Your task to perform on an android device: Do I have any events this weekend? Image 0: 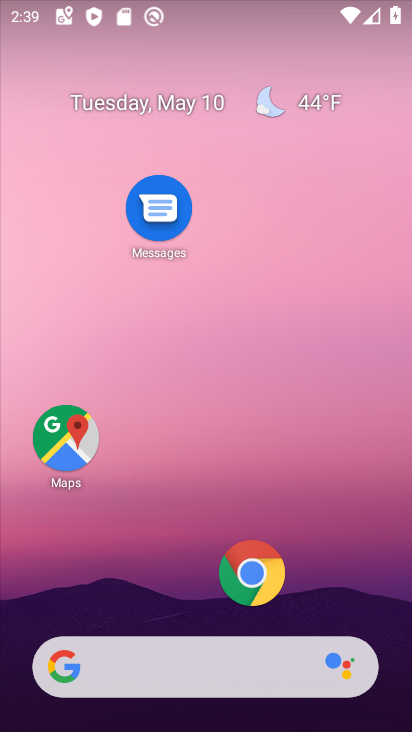
Step 0: drag from (192, 605) to (217, 191)
Your task to perform on an android device: Do I have any events this weekend? Image 1: 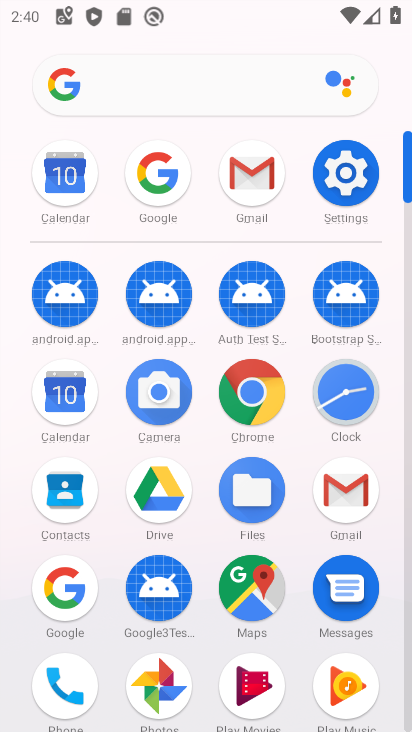
Step 1: click (59, 407)
Your task to perform on an android device: Do I have any events this weekend? Image 2: 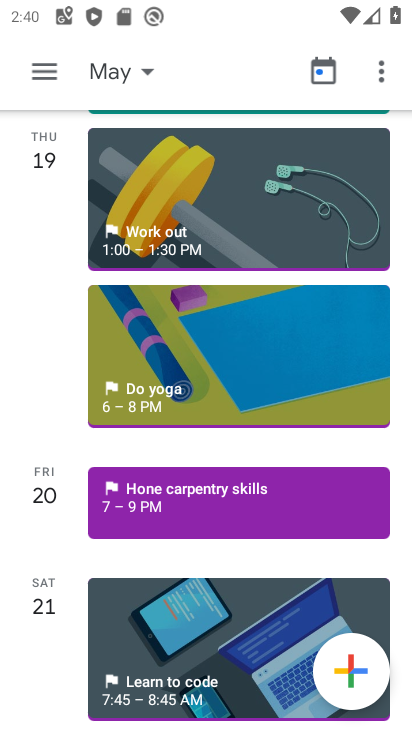
Step 2: click (143, 81)
Your task to perform on an android device: Do I have any events this weekend? Image 3: 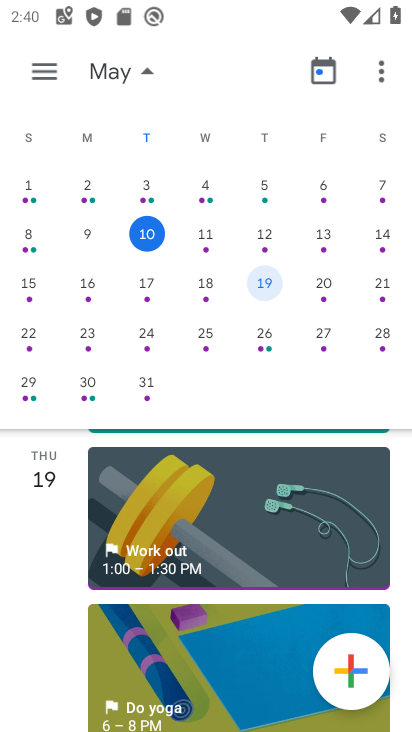
Step 3: click (373, 237)
Your task to perform on an android device: Do I have any events this weekend? Image 4: 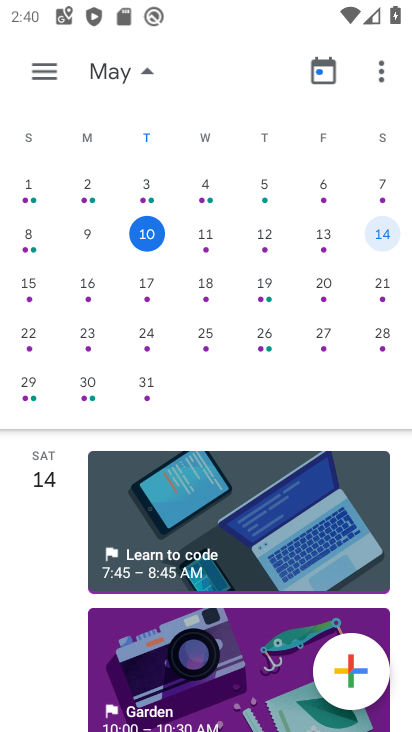
Step 4: task complete